Your task to perform on an android device: allow notifications from all sites in the chrome app Image 0: 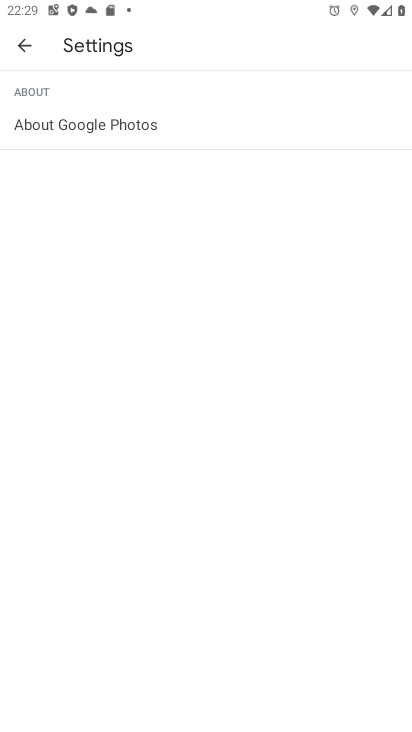
Step 0: press home button
Your task to perform on an android device: allow notifications from all sites in the chrome app Image 1: 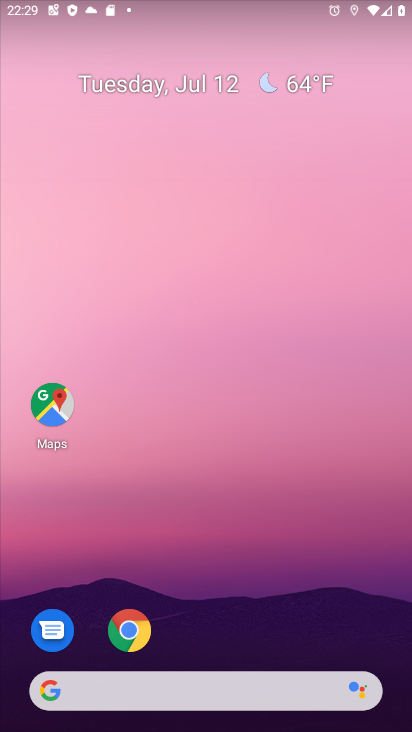
Step 1: drag from (257, 659) to (343, 13)
Your task to perform on an android device: allow notifications from all sites in the chrome app Image 2: 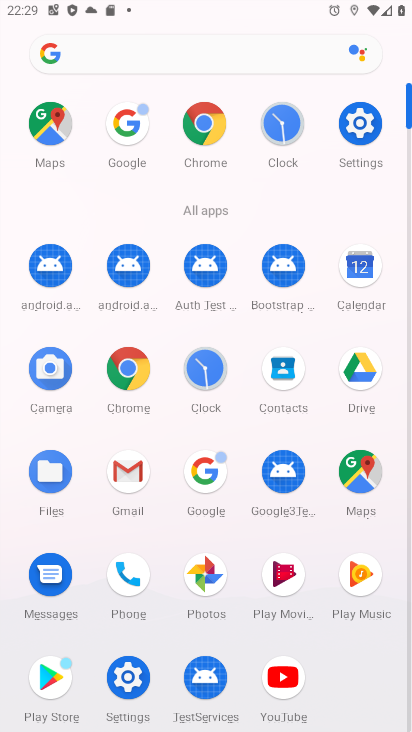
Step 2: click (132, 369)
Your task to perform on an android device: allow notifications from all sites in the chrome app Image 3: 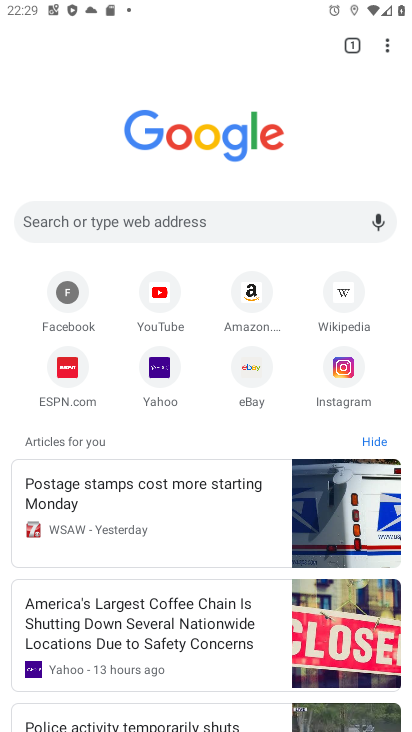
Step 3: drag from (386, 41) to (232, 383)
Your task to perform on an android device: allow notifications from all sites in the chrome app Image 4: 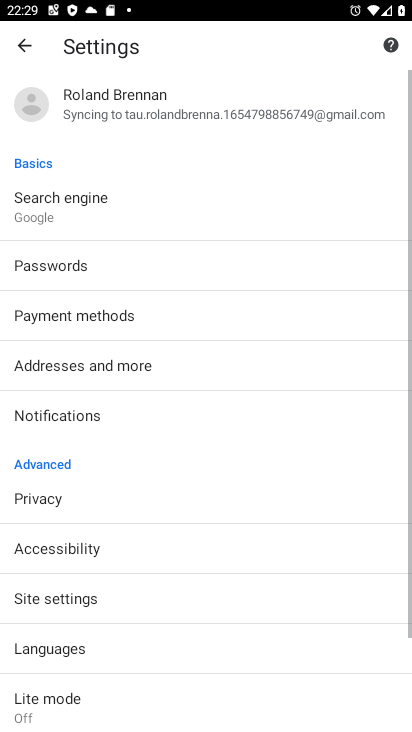
Step 4: click (102, 414)
Your task to perform on an android device: allow notifications from all sites in the chrome app Image 5: 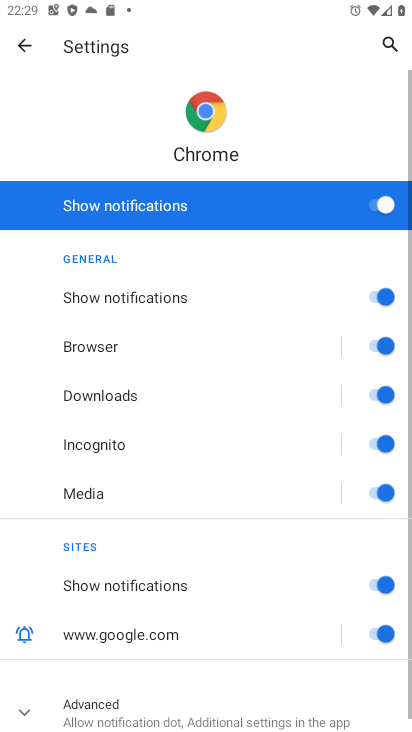
Step 5: click (18, 41)
Your task to perform on an android device: allow notifications from all sites in the chrome app Image 6: 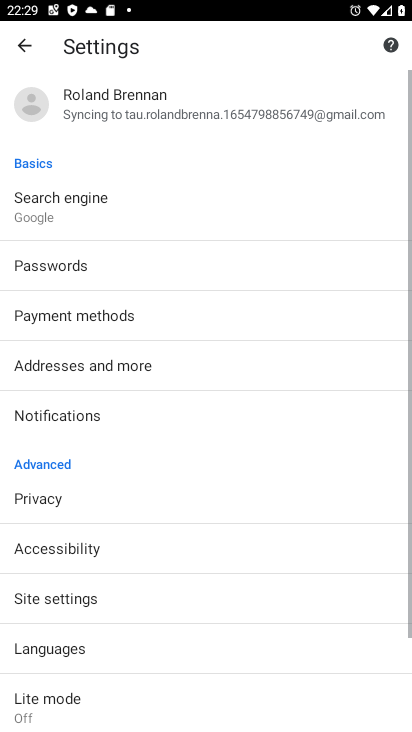
Step 6: click (82, 595)
Your task to perform on an android device: allow notifications from all sites in the chrome app Image 7: 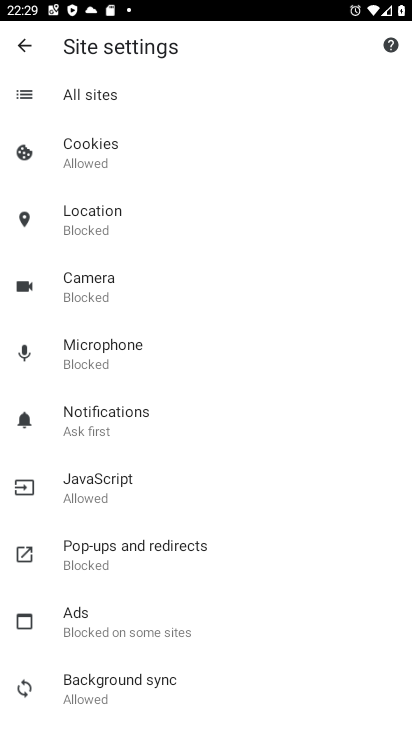
Step 7: click (115, 438)
Your task to perform on an android device: allow notifications from all sites in the chrome app Image 8: 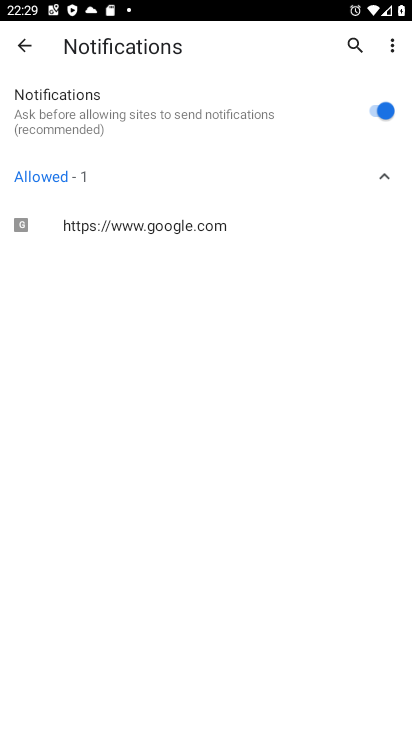
Step 8: click (374, 108)
Your task to perform on an android device: allow notifications from all sites in the chrome app Image 9: 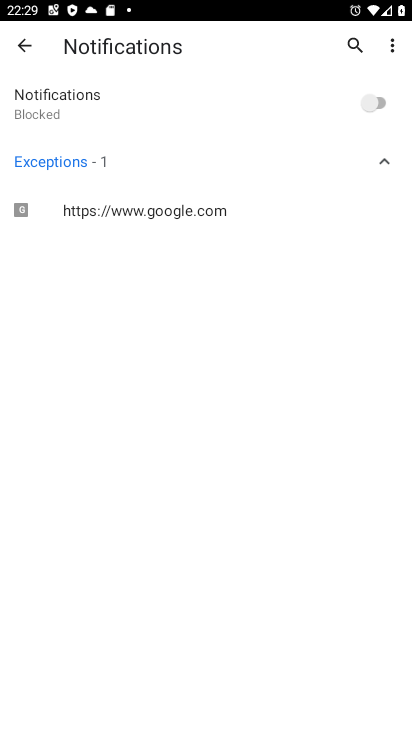
Step 9: task complete